Your task to perform on an android device: turn on showing notifications on the lock screen Image 0: 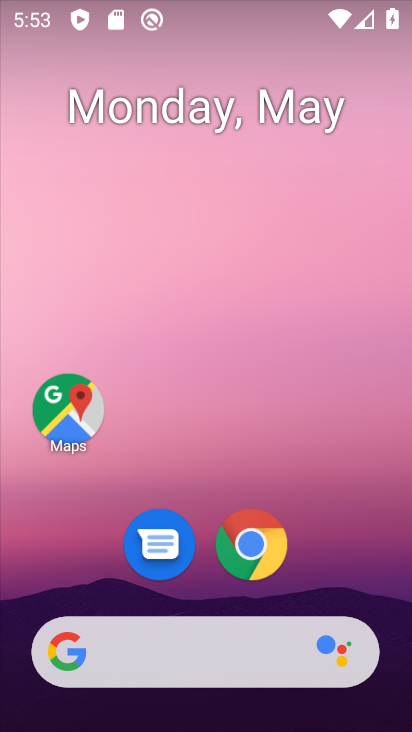
Step 0: click (245, 34)
Your task to perform on an android device: turn on showing notifications on the lock screen Image 1: 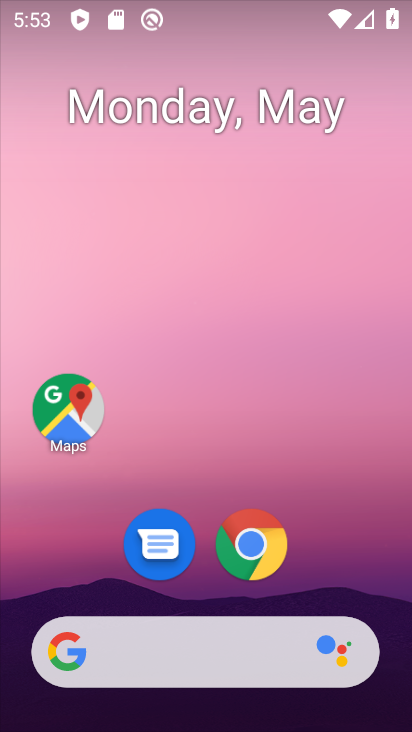
Step 1: drag from (373, 310) to (317, 39)
Your task to perform on an android device: turn on showing notifications on the lock screen Image 2: 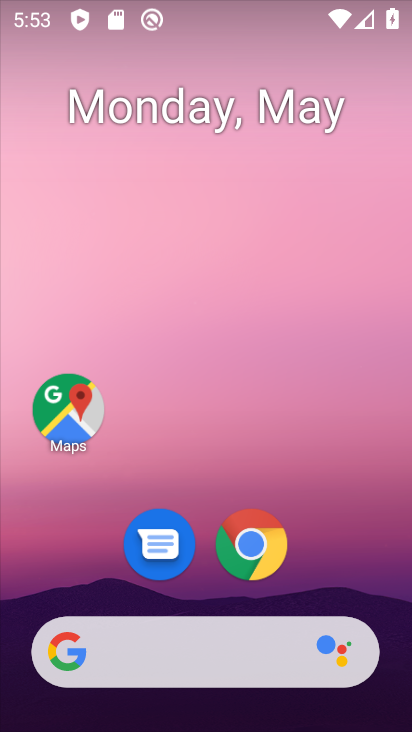
Step 2: drag from (357, 524) to (153, 54)
Your task to perform on an android device: turn on showing notifications on the lock screen Image 3: 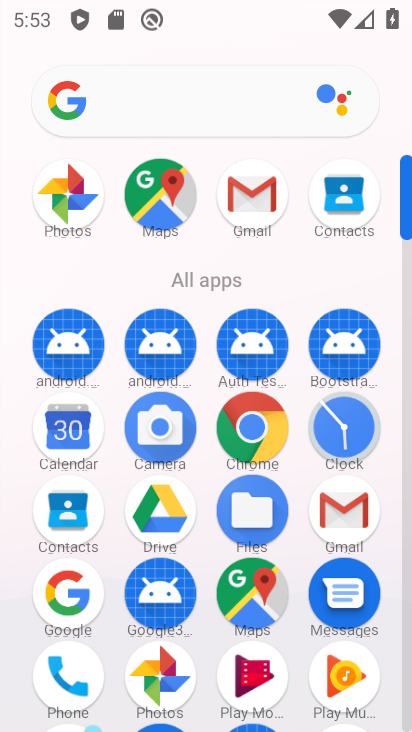
Step 3: drag from (218, 635) to (206, 175)
Your task to perform on an android device: turn on showing notifications on the lock screen Image 4: 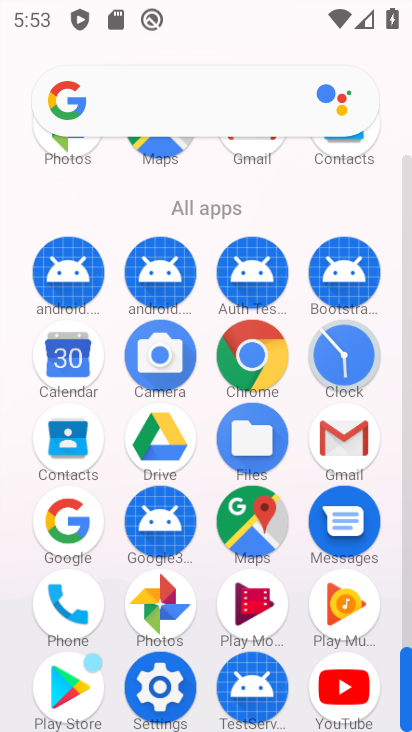
Step 4: click (163, 674)
Your task to perform on an android device: turn on showing notifications on the lock screen Image 5: 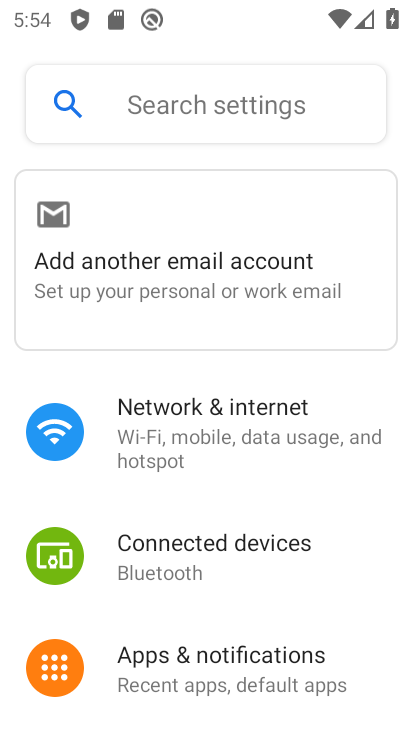
Step 5: drag from (290, 544) to (294, 204)
Your task to perform on an android device: turn on showing notifications on the lock screen Image 6: 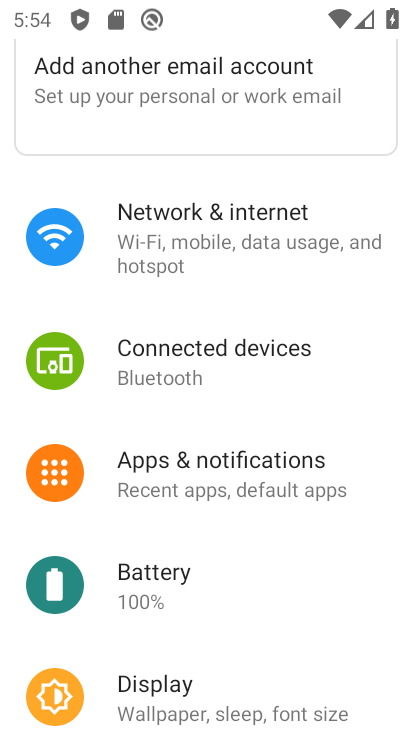
Step 6: click (227, 470)
Your task to perform on an android device: turn on showing notifications on the lock screen Image 7: 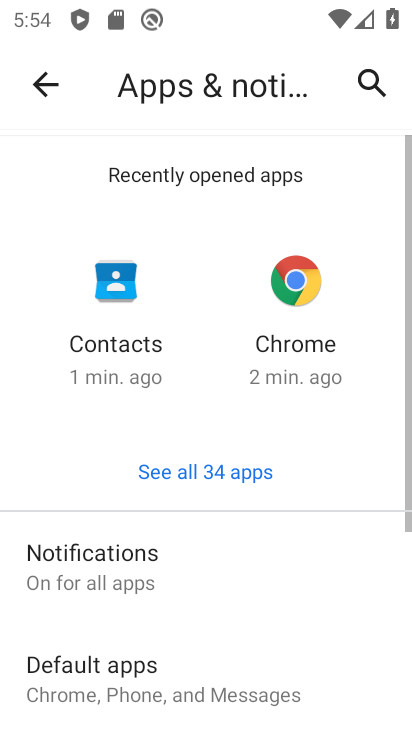
Step 7: click (176, 553)
Your task to perform on an android device: turn on showing notifications on the lock screen Image 8: 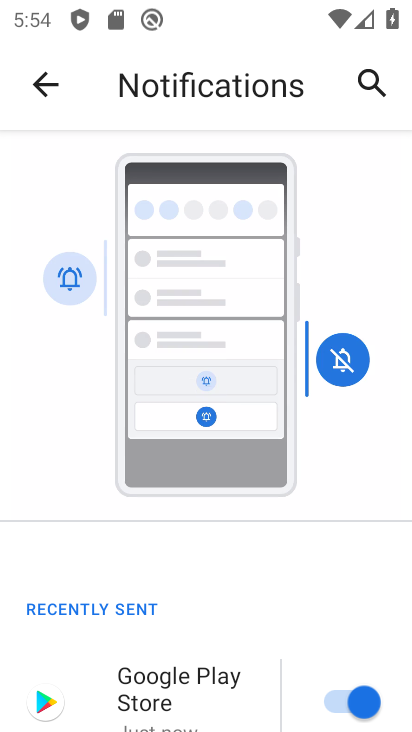
Step 8: drag from (244, 500) to (246, 55)
Your task to perform on an android device: turn on showing notifications on the lock screen Image 9: 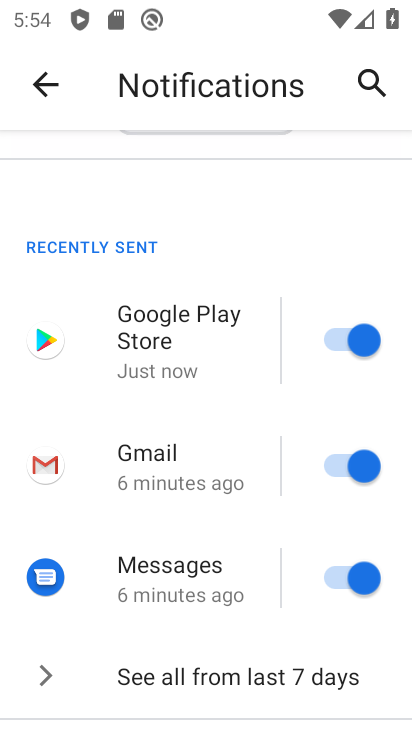
Step 9: drag from (192, 644) to (194, 252)
Your task to perform on an android device: turn on showing notifications on the lock screen Image 10: 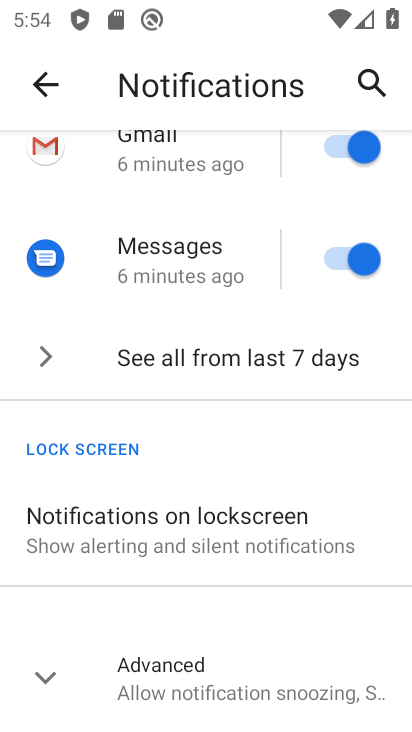
Step 10: click (214, 525)
Your task to perform on an android device: turn on showing notifications on the lock screen Image 11: 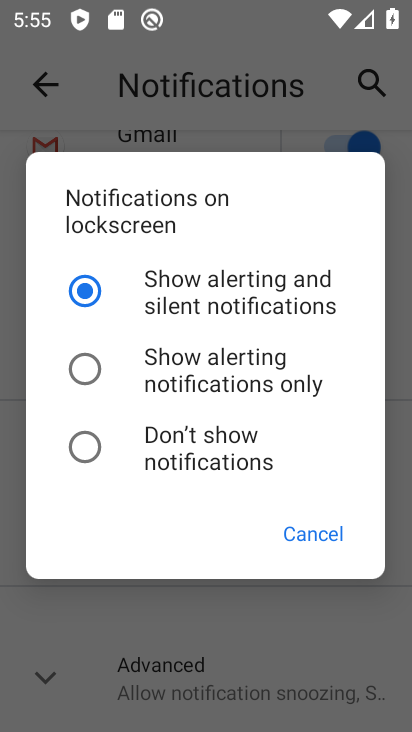
Step 11: task complete